Your task to perform on an android device: turn off wifi Image 0: 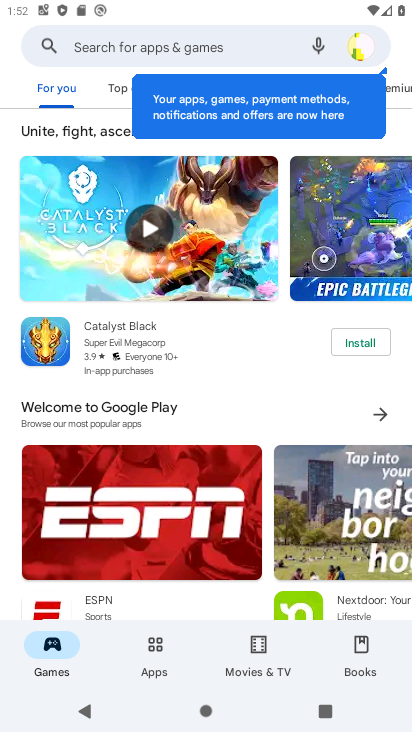
Step 0: press home button
Your task to perform on an android device: turn off wifi Image 1: 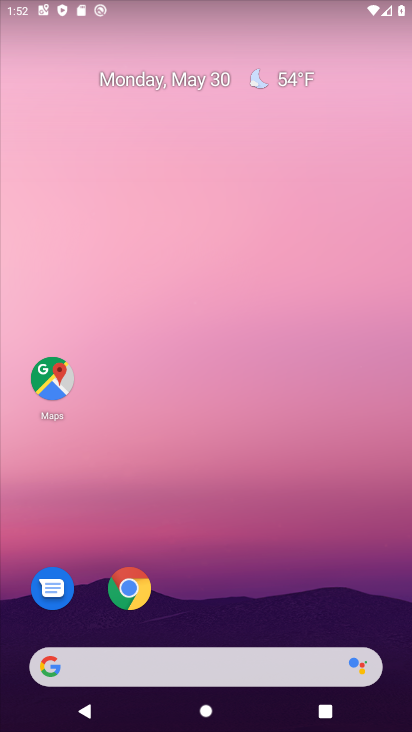
Step 1: drag from (204, 548) to (217, 23)
Your task to perform on an android device: turn off wifi Image 2: 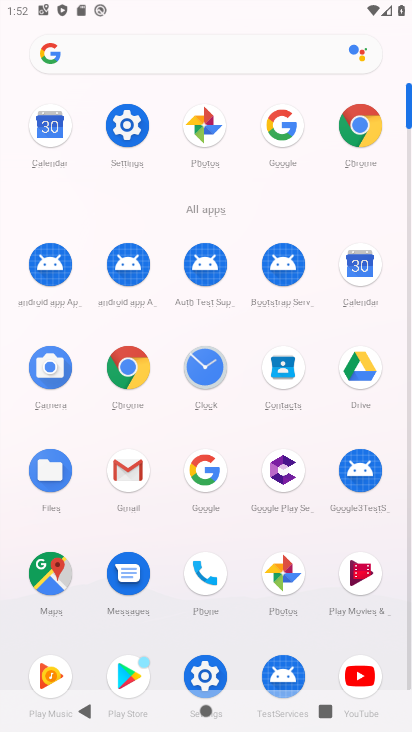
Step 2: click (128, 119)
Your task to perform on an android device: turn off wifi Image 3: 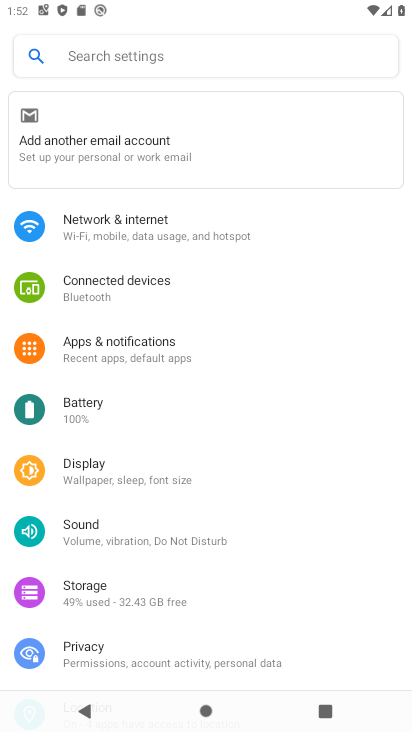
Step 3: click (159, 243)
Your task to perform on an android device: turn off wifi Image 4: 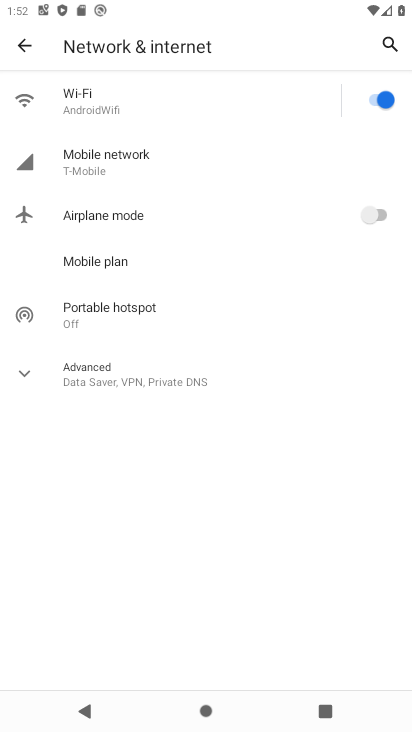
Step 4: click (370, 103)
Your task to perform on an android device: turn off wifi Image 5: 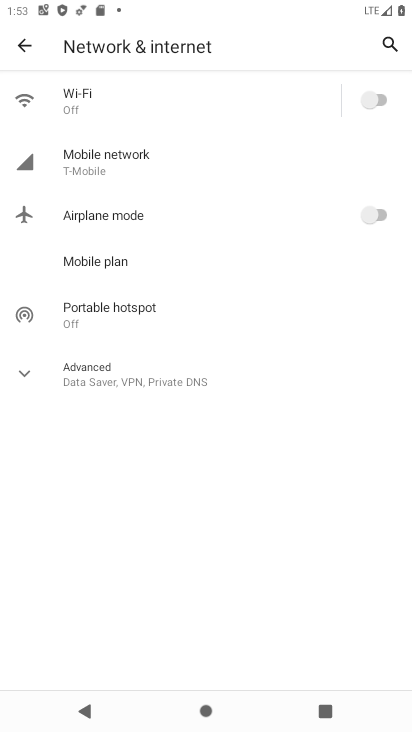
Step 5: task complete